Your task to perform on an android device: delete location history Image 0: 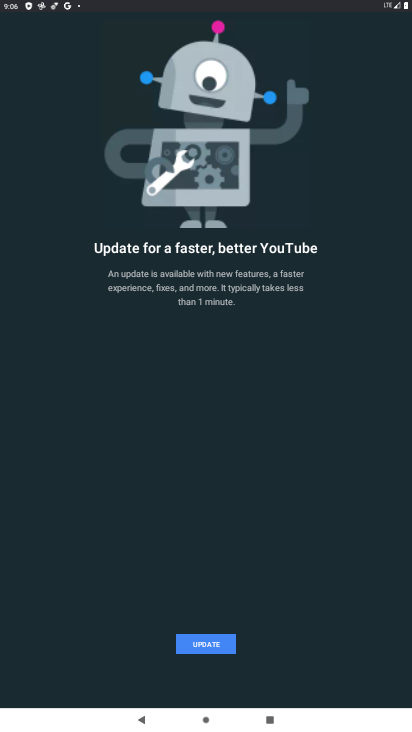
Step 0: press home button
Your task to perform on an android device: delete location history Image 1: 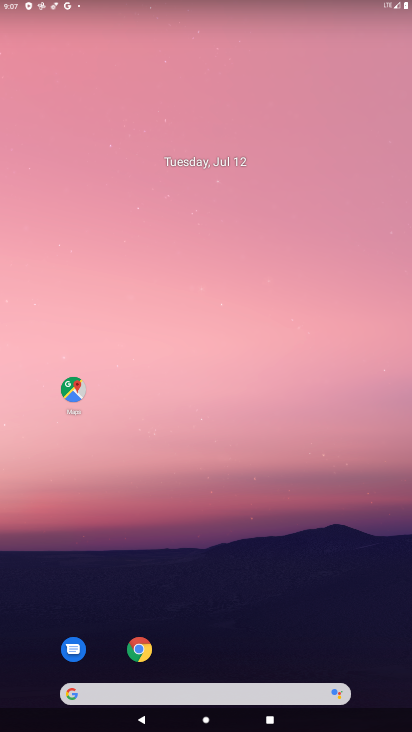
Step 1: drag from (295, 653) to (322, 173)
Your task to perform on an android device: delete location history Image 2: 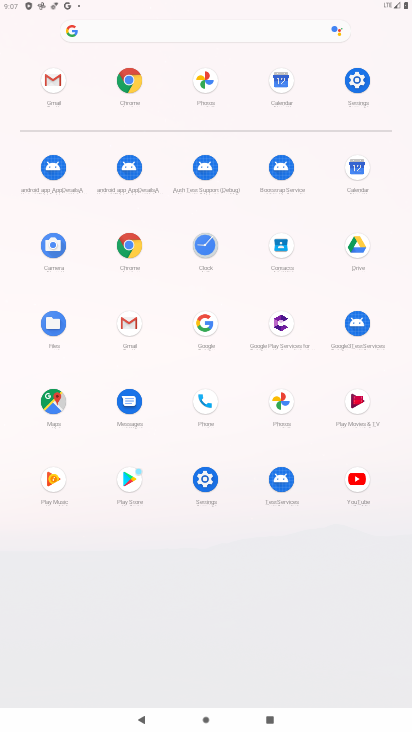
Step 2: click (355, 111)
Your task to perform on an android device: delete location history Image 3: 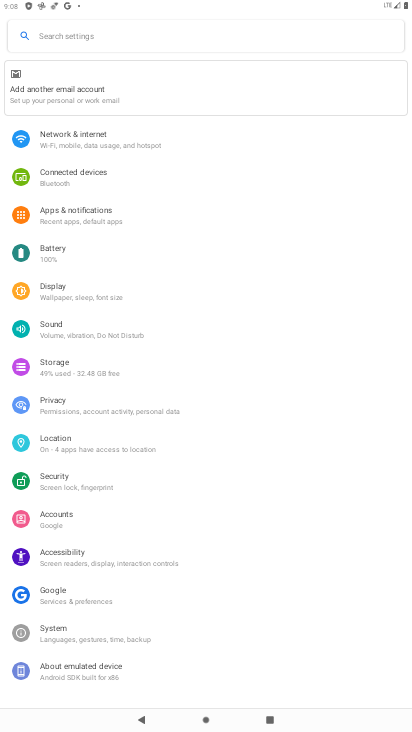
Step 3: click (103, 441)
Your task to perform on an android device: delete location history Image 4: 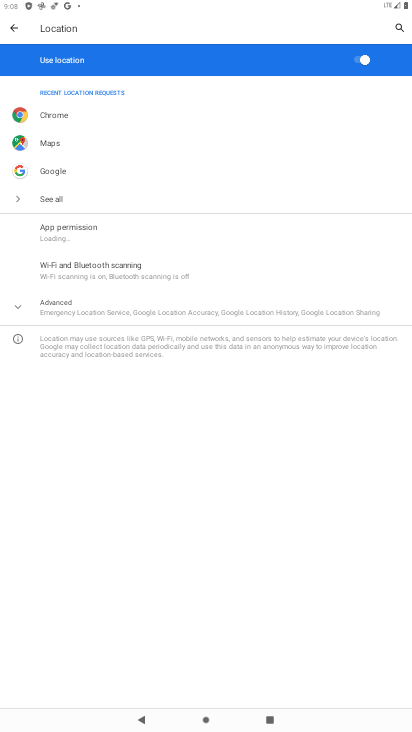
Step 4: task complete